Your task to perform on an android device: turn vacation reply on in the gmail app Image 0: 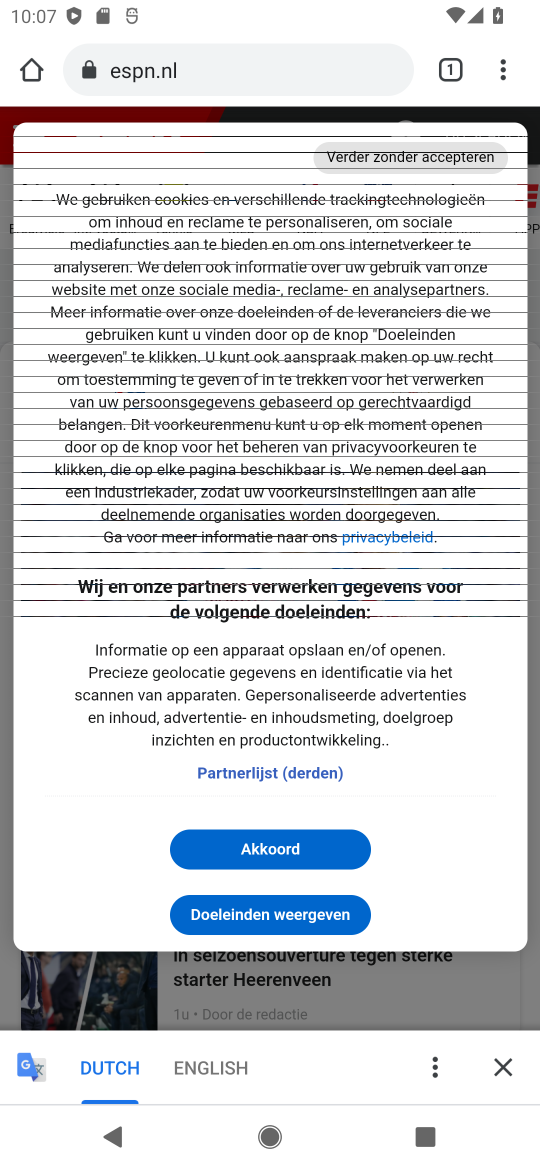
Step 0: press home button
Your task to perform on an android device: turn vacation reply on in the gmail app Image 1: 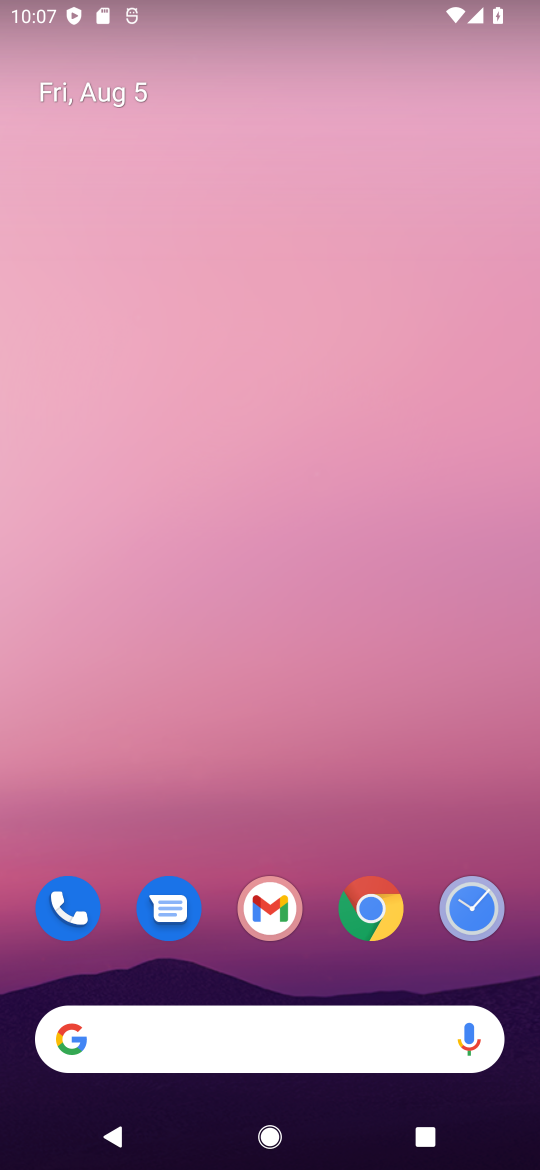
Step 1: task complete